Your task to perform on an android device: turn off location Image 0: 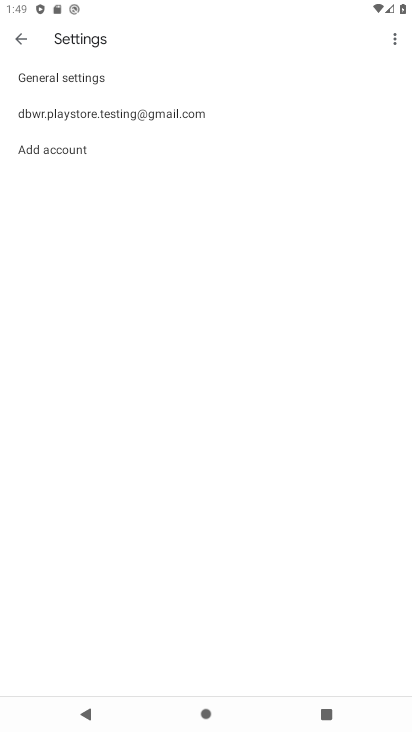
Step 0: press home button
Your task to perform on an android device: turn off location Image 1: 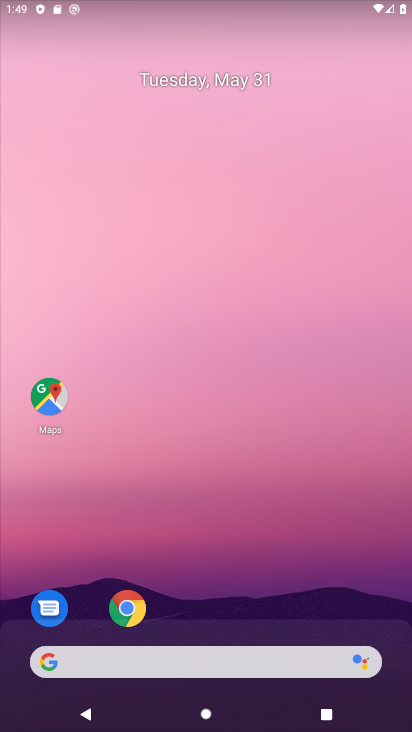
Step 1: drag from (323, 588) to (329, 25)
Your task to perform on an android device: turn off location Image 2: 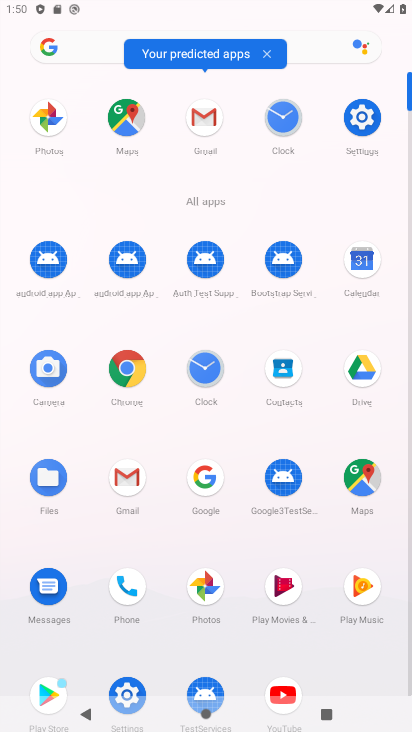
Step 2: click (367, 118)
Your task to perform on an android device: turn off location Image 3: 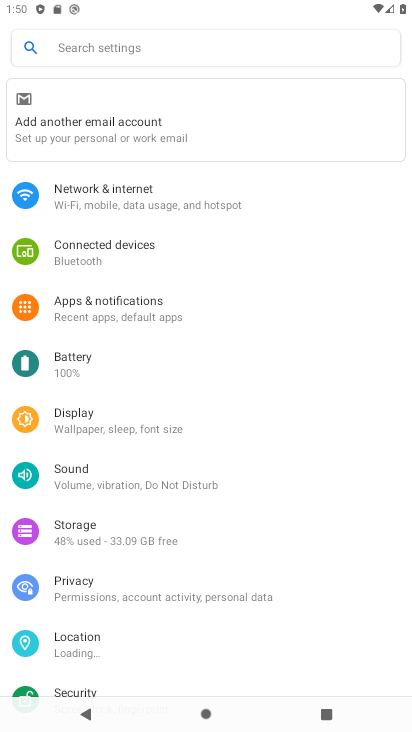
Step 3: click (93, 634)
Your task to perform on an android device: turn off location Image 4: 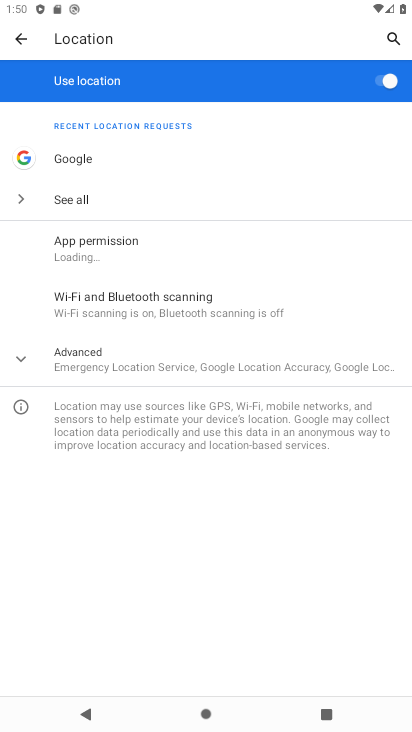
Step 4: click (387, 85)
Your task to perform on an android device: turn off location Image 5: 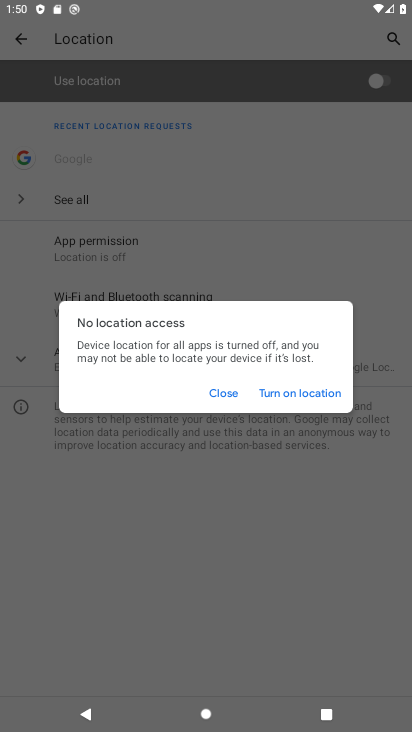
Step 5: task complete